Your task to perform on an android device: Open Google Maps Image 0: 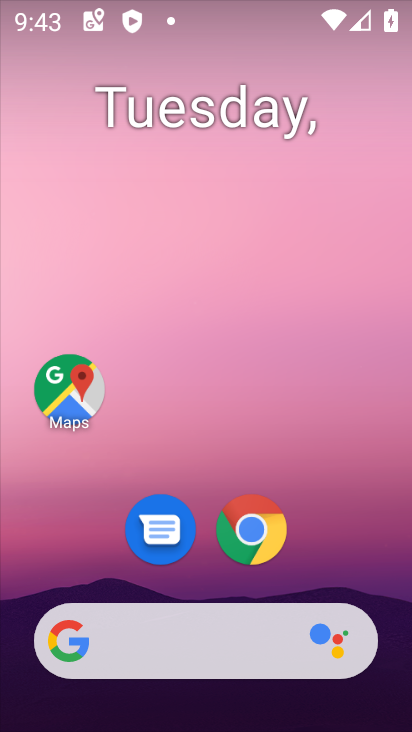
Step 0: drag from (219, 619) to (317, 178)
Your task to perform on an android device: Open Google Maps Image 1: 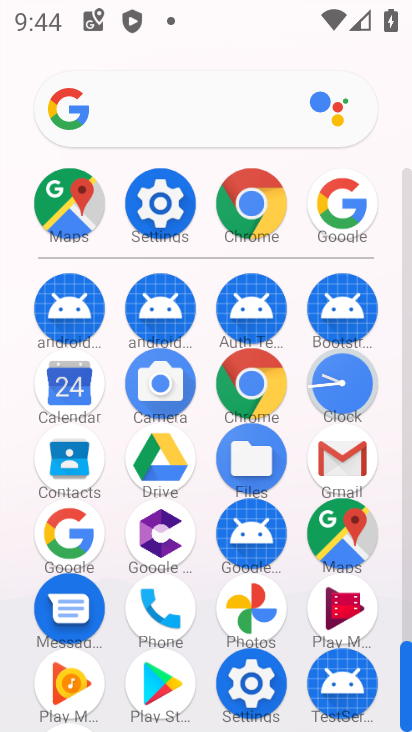
Step 1: click (347, 533)
Your task to perform on an android device: Open Google Maps Image 2: 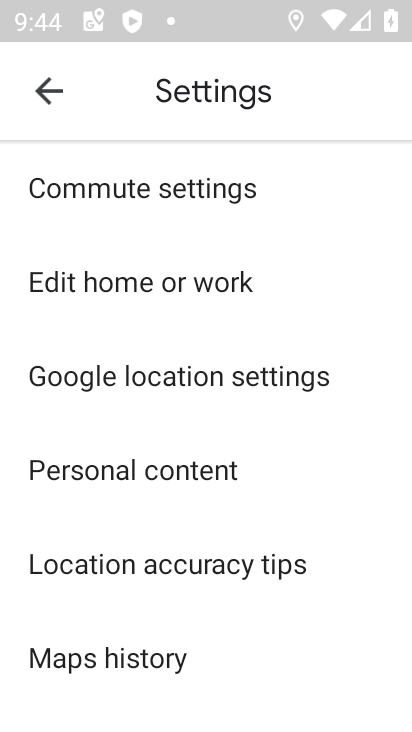
Step 2: click (249, 549)
Your task to perform on an android device: Open Google Maps Image 3: 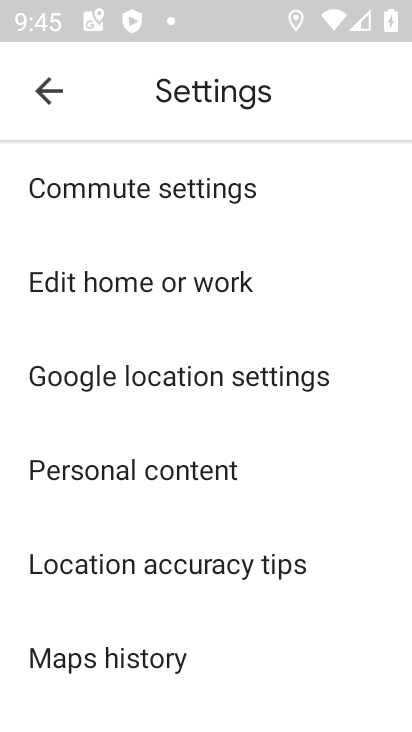
Step 3: drag from (198, 595) to (211, 354)
Your task to perform on an android device: Open Google Maps Image 4: 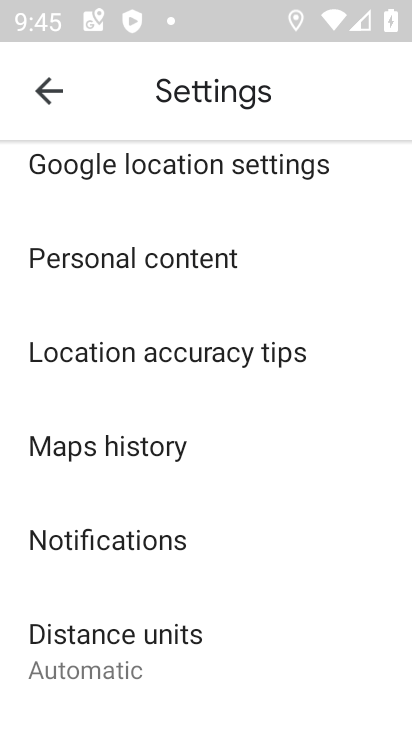
Step 4: press home button
Your task to perform on an android device: Open Google Maps Image 5: 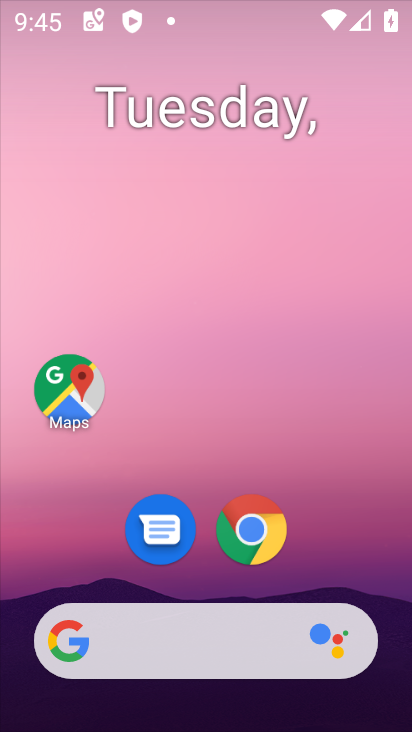
Step 5: drag from (198, 659) to (232, 2)
Your task to perform on an android device: Open Google Maps Image 6: 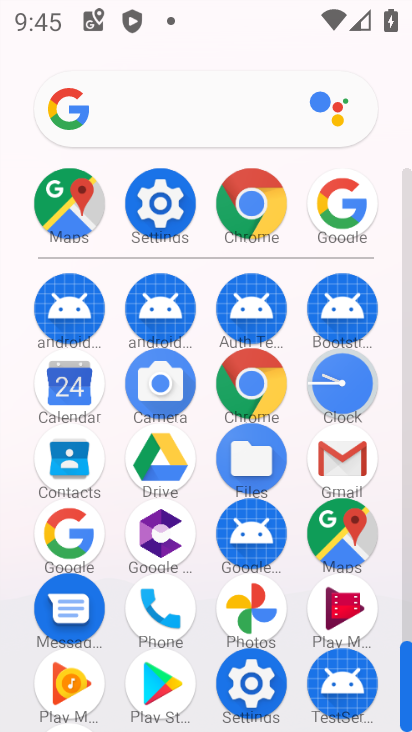
Step 6: click (81, 208)
Your task to perform on an android device: Open Google Maps Image 7: 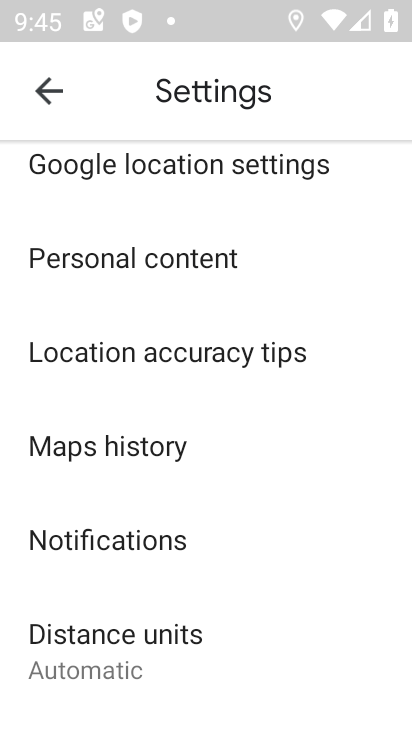
Step 7: click (60, 88)
Your task to perform on an android device: Open Google Maps Image 8: 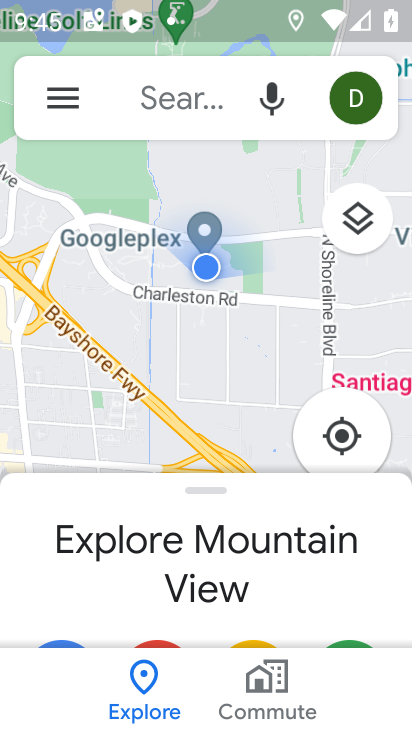
Step 8: task complete